Your task to perform on an android device: snooze an email in the gmail app Image 0: 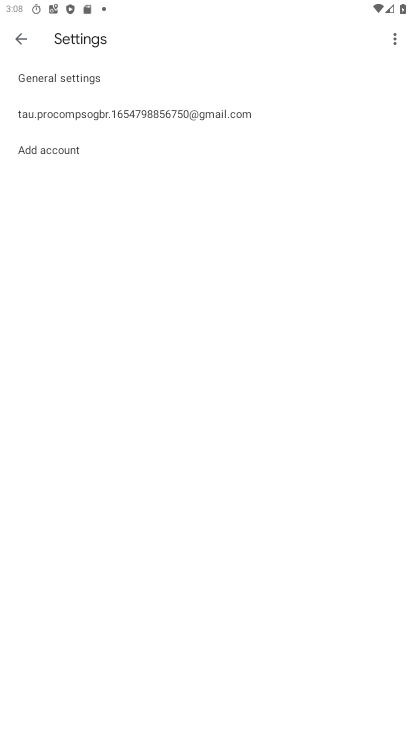
Step 0: press back button
Your task to perform on an android device: snooze an email in the gmail app Image 1: 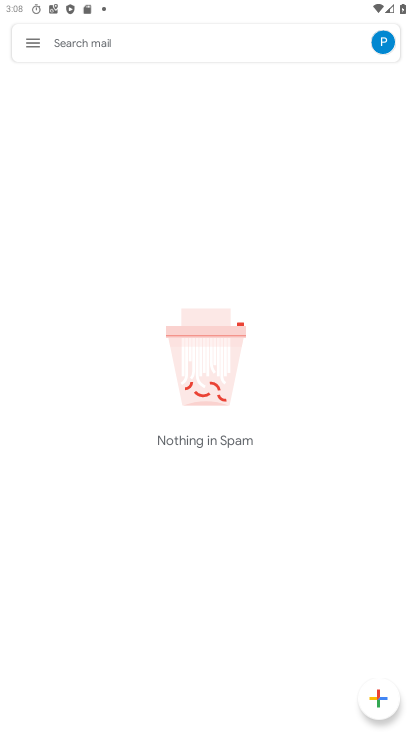
Step 1: click (31, 40)
Your task to perform on an android device: snooze an email in the gmail app Image 2: 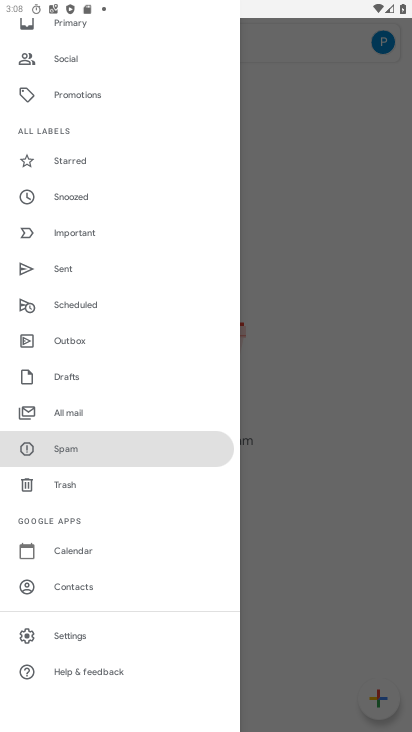
Step 2: click (73, 413)
Your task to perform on an android device: snooze an email in the gmail app Image 3: 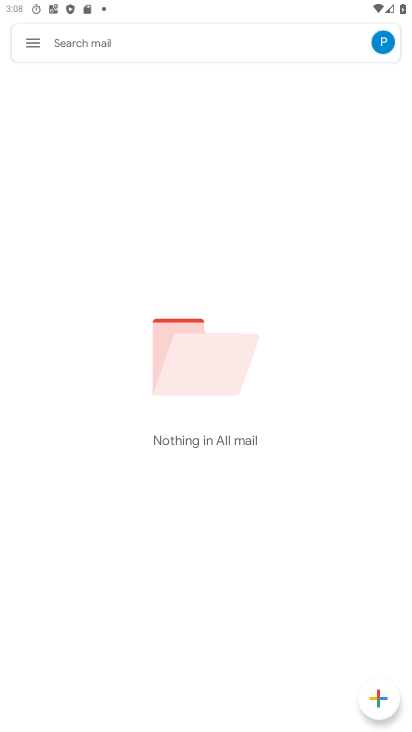
Step 3: task complete